Your task to perform on an android device: Search for Italian restaurants on Maps Image 0: 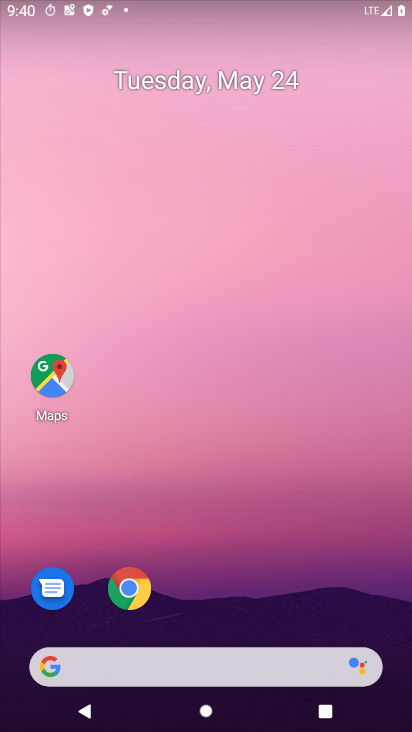
Step 0: click (52, 374)
Your task to perform on an android device: Search for Italian restaurants on Maps Image 1: 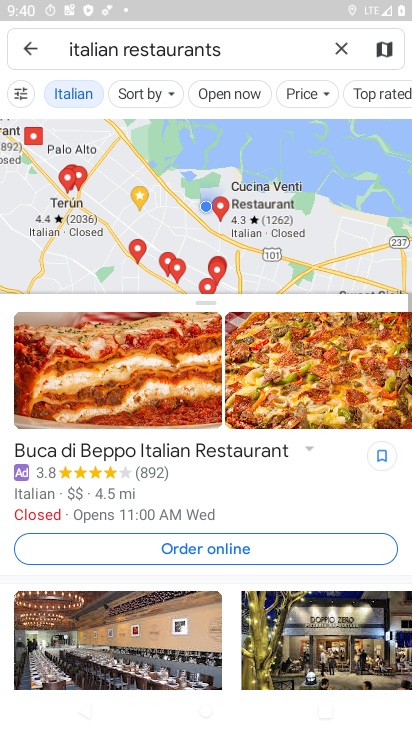
Step 1: task complete